Your task to perform on an android device: Go to Maps Image 0: 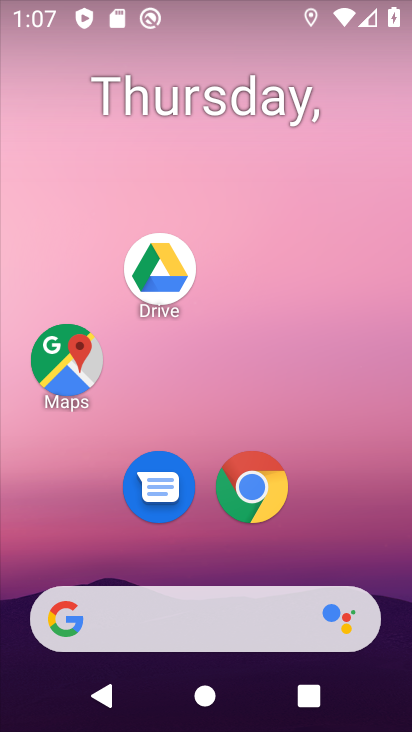
Step 0: click (60, 373)
Your task to perform on an android device: Go to Maps Image 1: 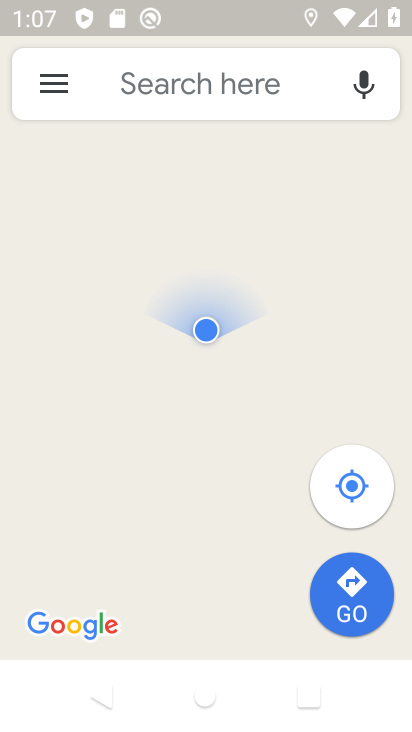
Step 1: task complete